Your task to perform on an android device: check storage Image 0: 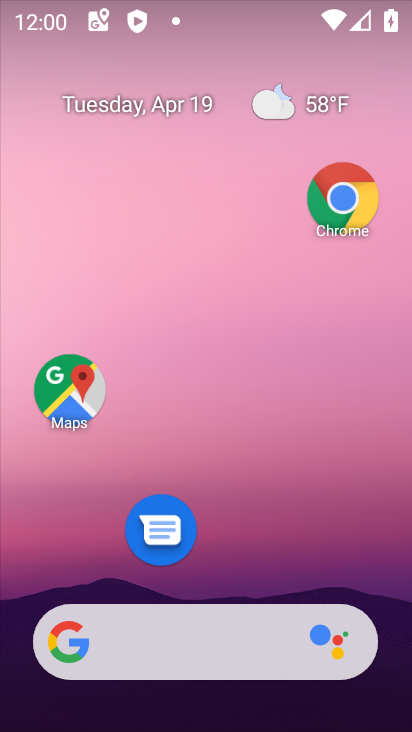
Step 0: drag from (248, 344) to (244, 11)
Your task to perform on an android device: check storage Image 1: 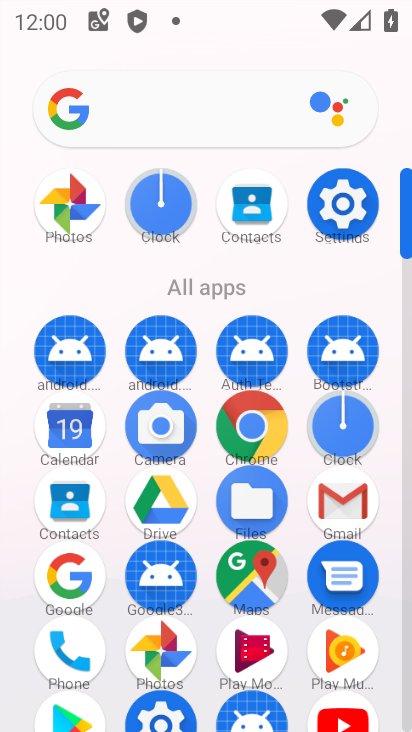
Step 1: click (336, 213)
Your task to perform on an android device: check storage Image 2: 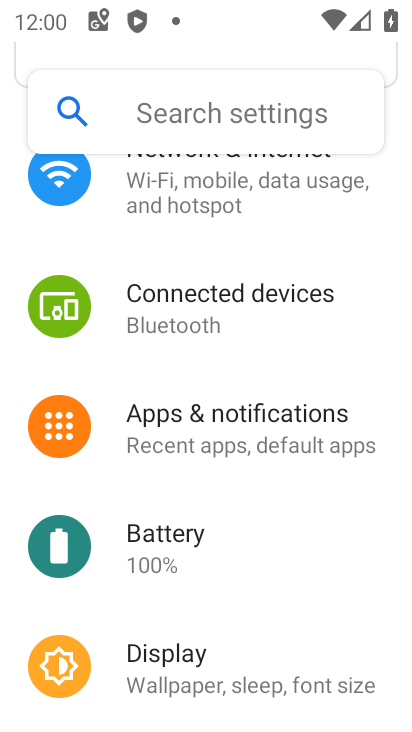
Step 2: drag from (239, 608) to (239, 157)
Your task to perform on an android device: check storage Image 3: 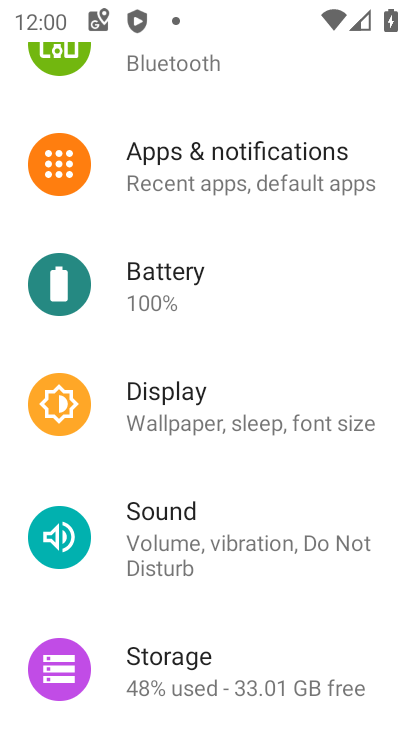
Step 3: click (234, 662)
Your task to perform on an android device: check storage Image 4: 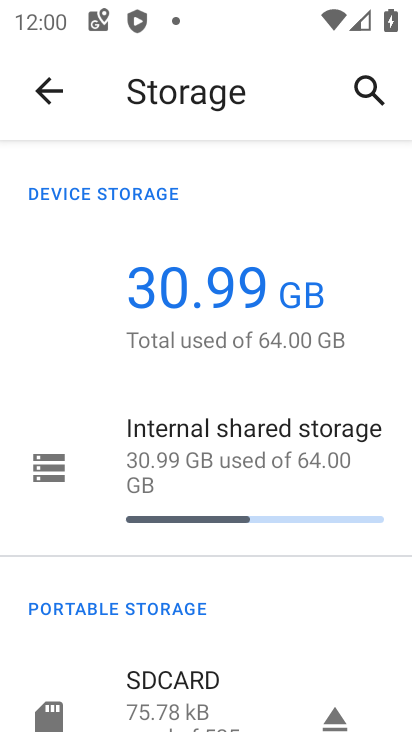
Step 4: task complete